Your task to perform on an android device: clear all cookies in the chrome app Image 0: 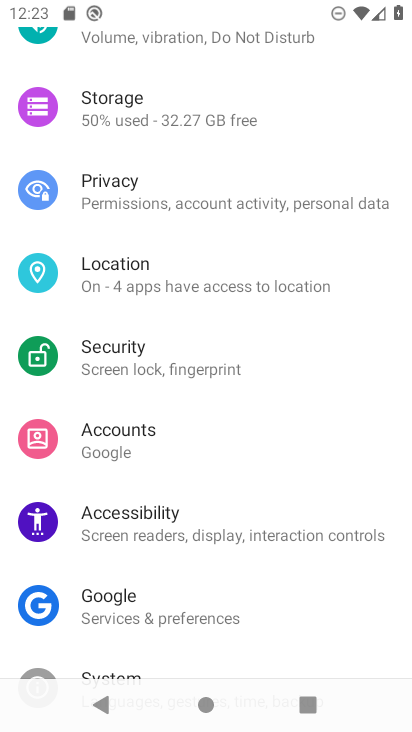
Step 0: press home button
Your task to perform on an android device: clear all cookies in the chrome app Image 1: 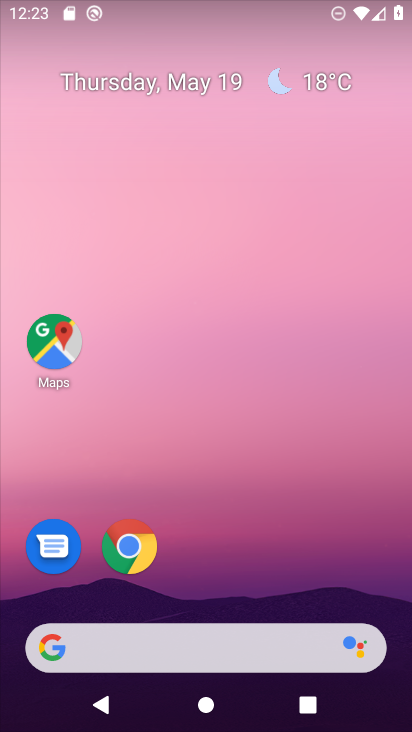
Step 1: click (126, 549)
Your task to perform on an android device: clear all cookies in the chrome app Image 2: 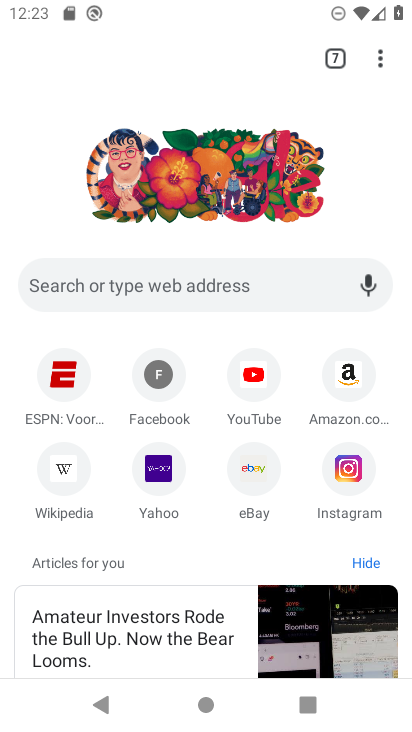
Step 2: click (383, 63)
Your task to perform on an android device: clear all cookies in the chrome app Image 3: 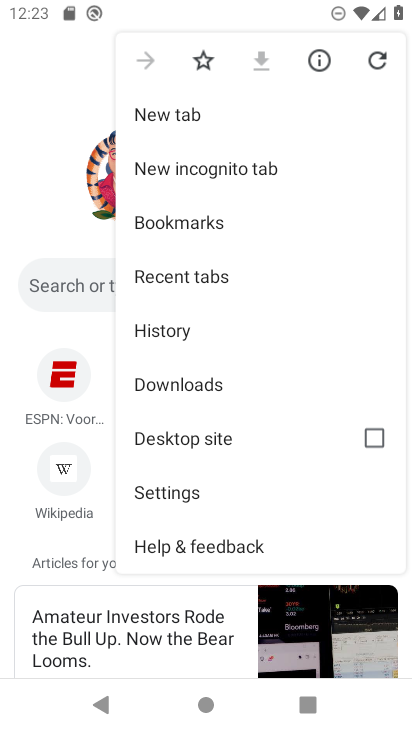
Step 3: click (165, 489)
Your task to perform on an android device: clear all cookies in the chrome app Image 4: 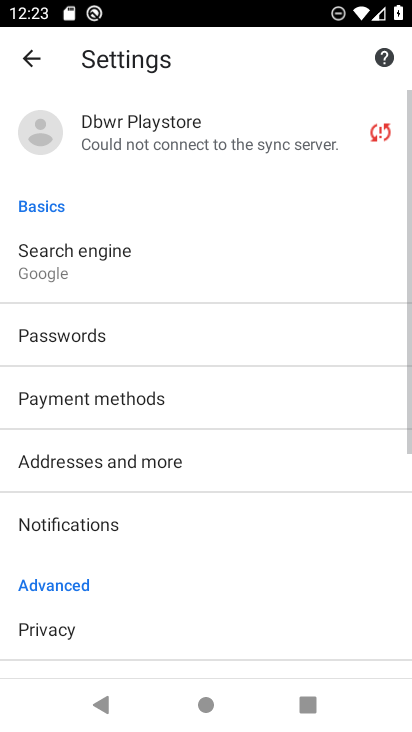
Step 4: drag from (148, 623) to (167, 371)
Your task to perform on an android device: clear all cookies in the chrome app Image 5: 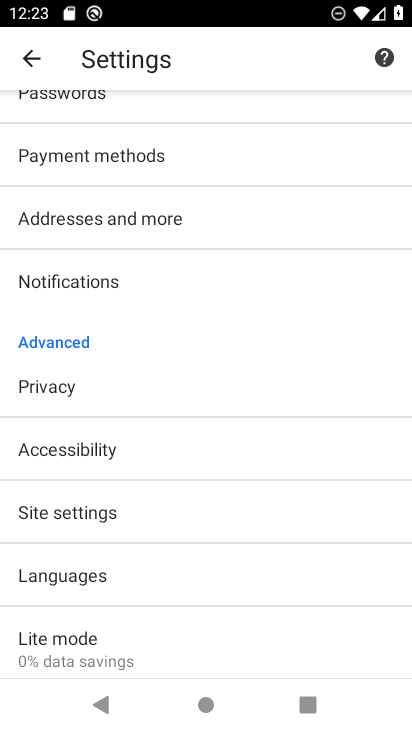
Step 5: click (57, 382)
Your task to perform on an android device: clear all cookies in the chrome app Image 6: 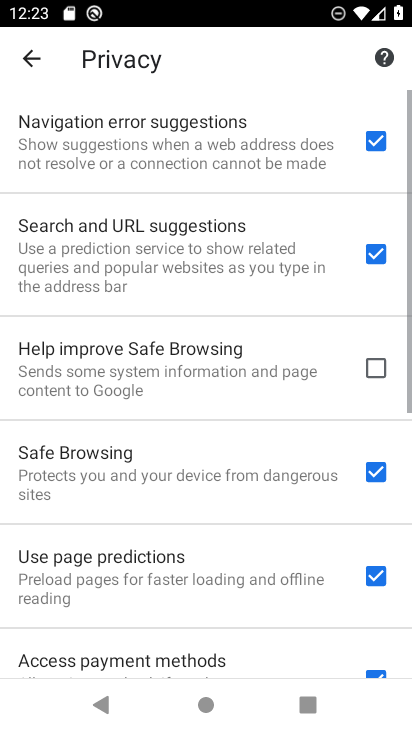
Step 6: drag from (176, 632) to (197, 247)
Your task to perform on an android device: clear all cookies in the chrome app Image 7: 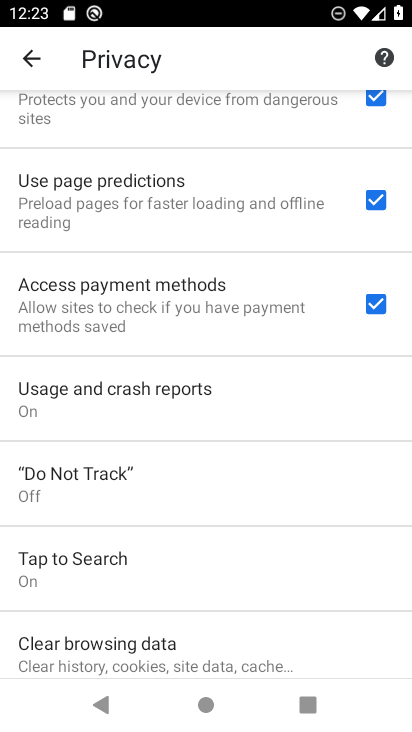
Step 7: drag from (188, 613) to (198, 364)
Your task to perform on an android device: clear all cookies in the chrome app Image 8: 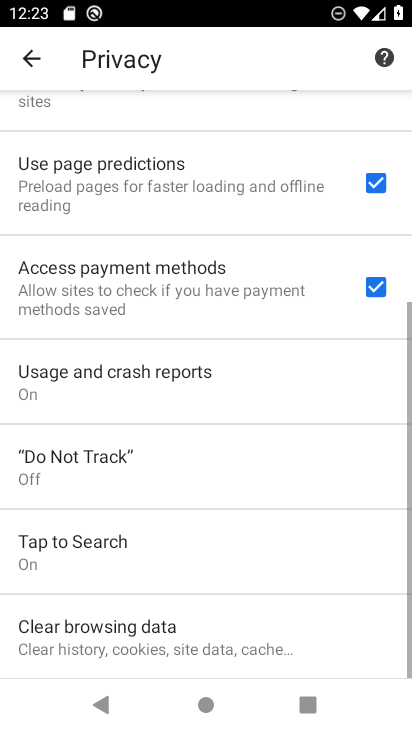
Step 8: click (218, 629)
Your task to perform on an android device: clear all cookies in the chrome app Image 9: 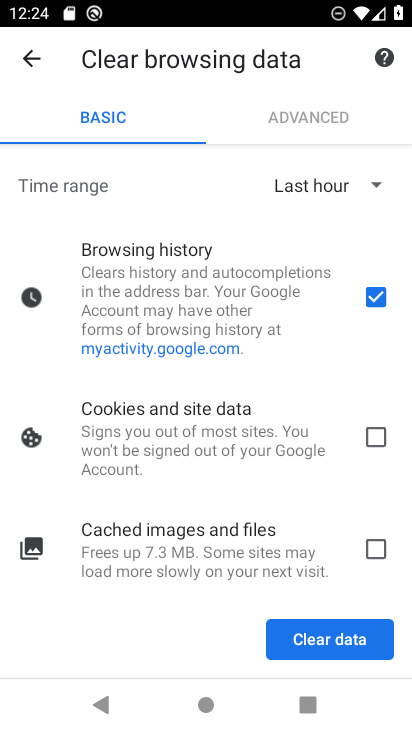
Step 9: click (378, 433)
Your task to perform on an android device: clear all cookies in the chrome app Image 10: 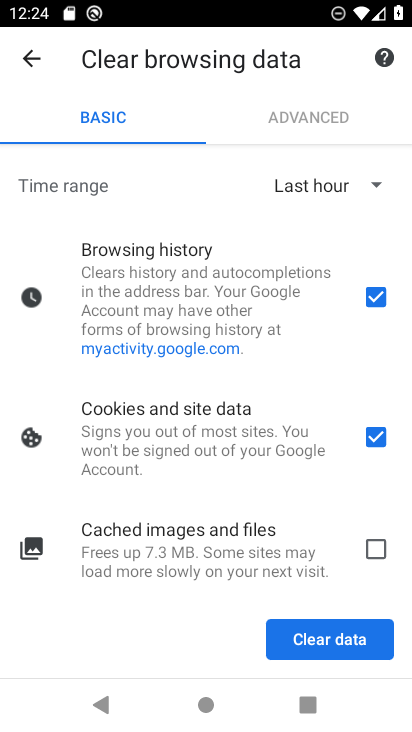
Step 10: click (378, 292)
Your task to perform on an android device: clear all cookies in the chrome app Image 11: 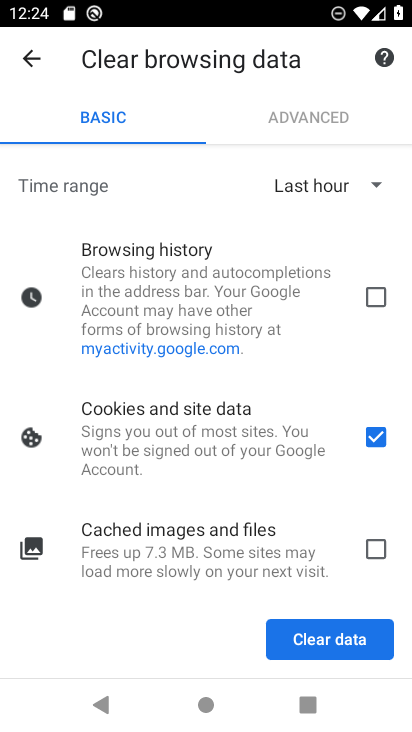
Step 11: click (342, 635)
Your task to perform on an android device: clear all cookies in the chrome app Image 12: 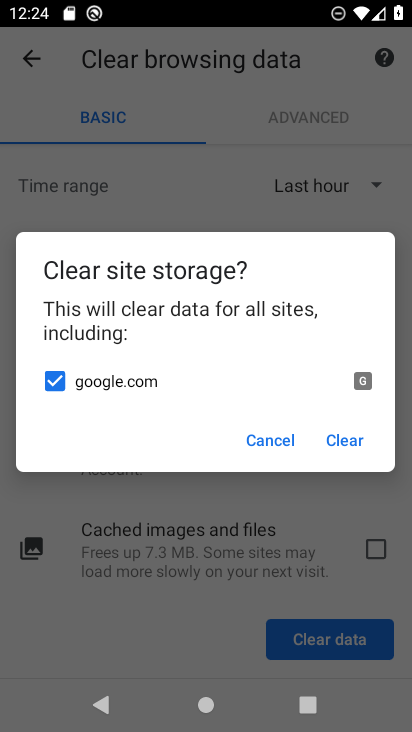
Step 12: click (340, 435)
Your task to perform on an android device: clear all cookies in the chrome app Image 13: 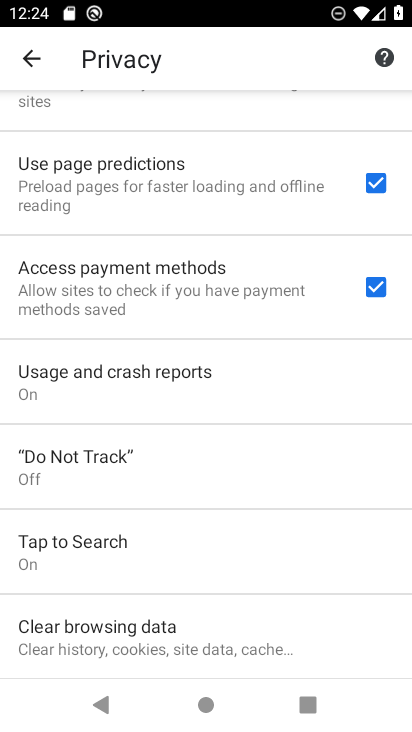
Step 13: task complete